Your task to perform on an android device: toggle data saver in the chrome app Image 0: 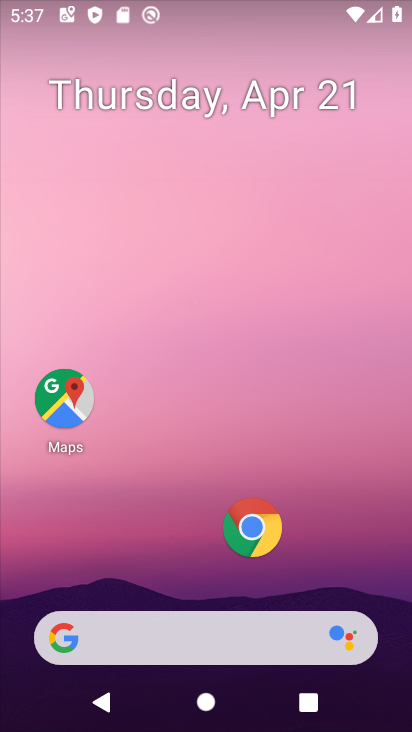
Step 0: drag from (179, 505) to (262, 74)
Your task to perform on an android device: toggle data saver in the chrome app Image 1: 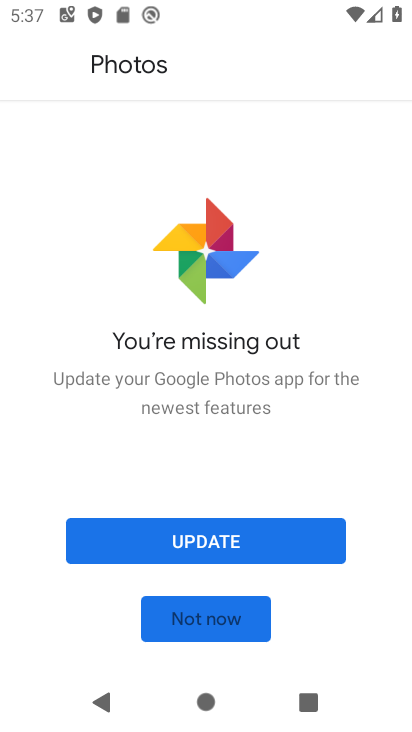
Step 1: press home button
Your task to perform on an android device: toggle data saver in the chrome app Image 2: 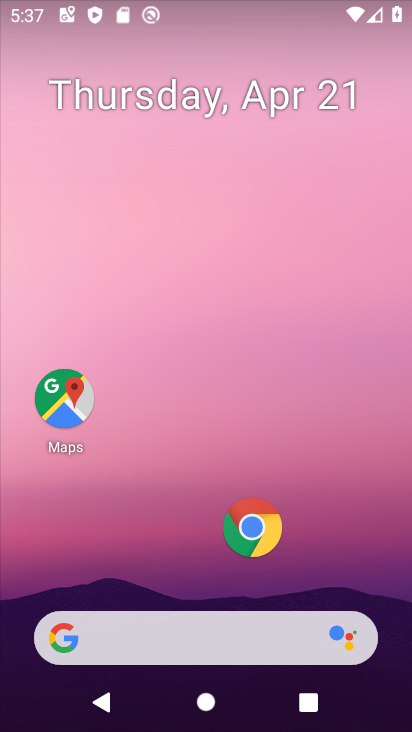
Step 2: click (264, 516)
Your task to perform on an android device: toggle data saver in the chrome app Image 3: 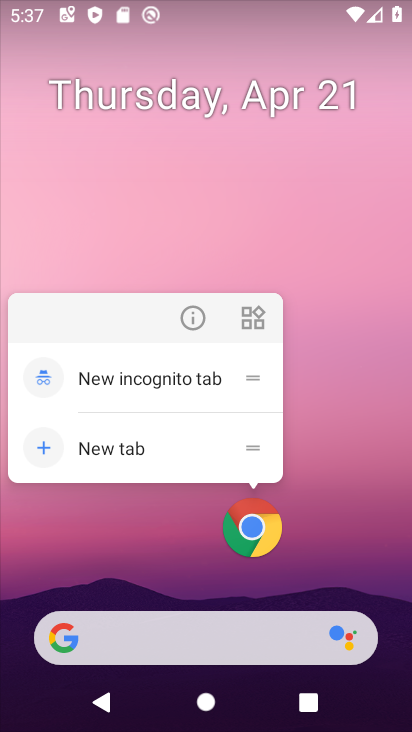
Step 3: click (251, 521)
Your task to perform on an android device: toggle data saver in the chrome app Image 4: 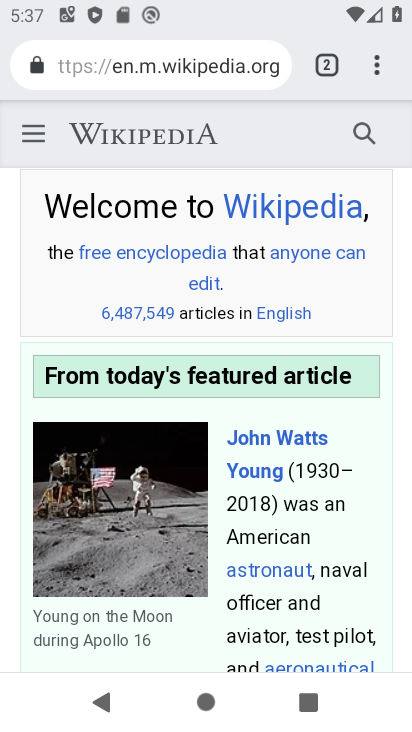
Step 4: drag from (374, 71) to (191, 559)
Your task to perform on an android device: toggle data saver in the chrome app Image 5: 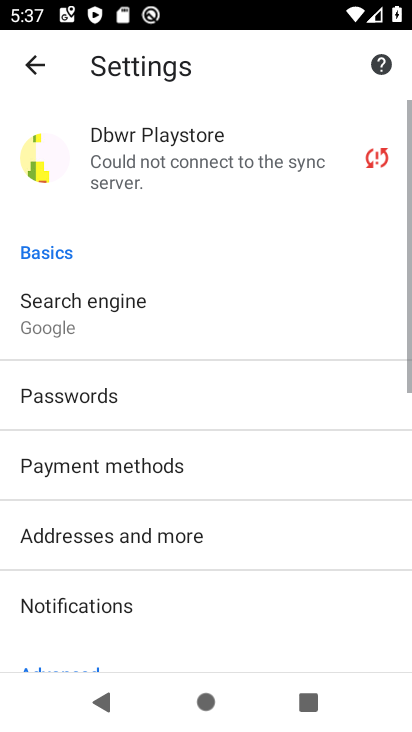
Step 5: drag from (182, 499) to (345, 85)
Your task to perform on an android device: toggle data saver in the chrome app Image 6: 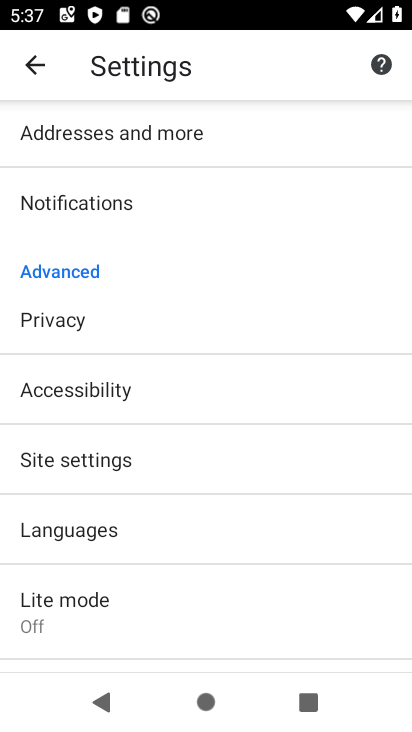
Step 6: click (103, 609)
Your task to perform on an android device: toggle data saver in the chrome app Image 7: 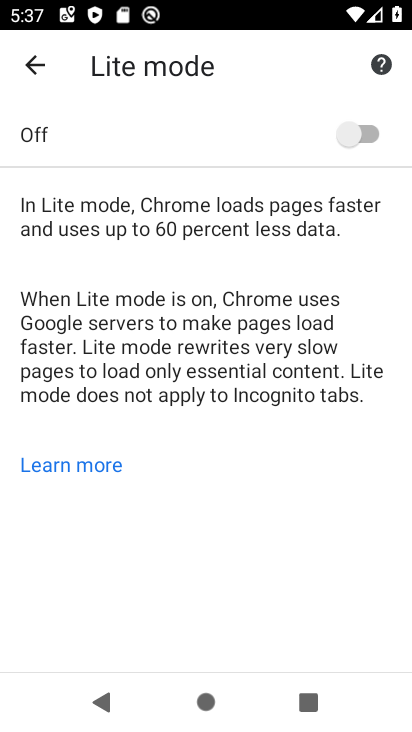
Step 7: click (352, 129)
Your task to perform on an android device: toggle data saver in the chrome app Image 8: 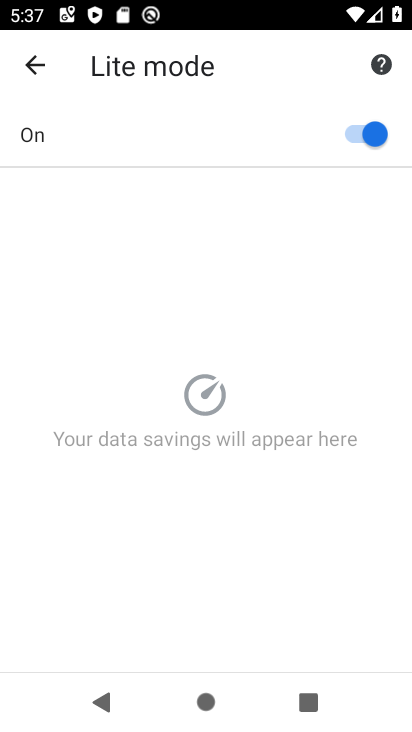
Step 8: task complete